Your task to perform on an android device: Open Reddit.com Image 0: 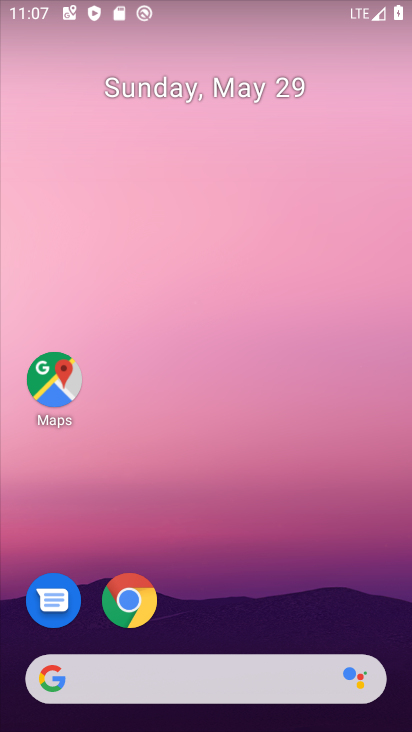
Step 0: click (143, 593)
Your task to perform on an android device: Open Reddit.com Image 1: 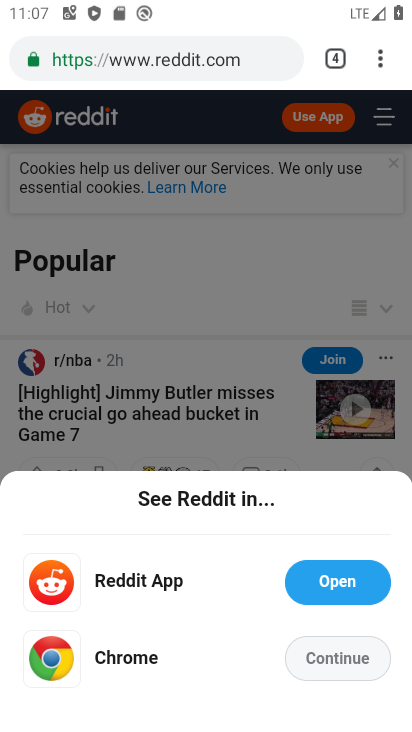
Step 1: click (179, 63)
Your task to perform on an android device: Open Reddit.com Image 2: 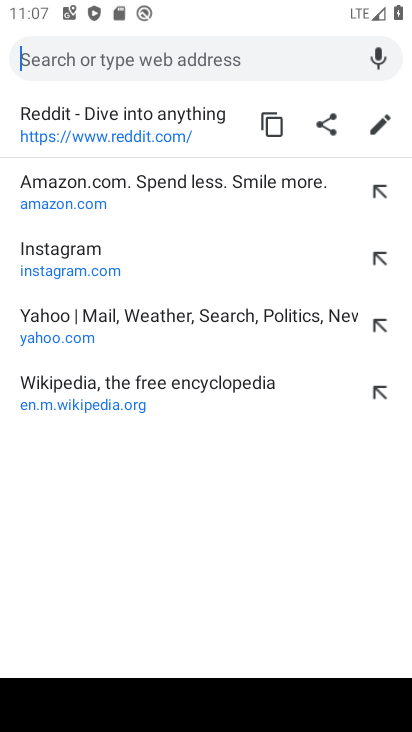
Step 2: task complete